Your task to perform on an android device: move an email to a new category in the gmail app Image 0: 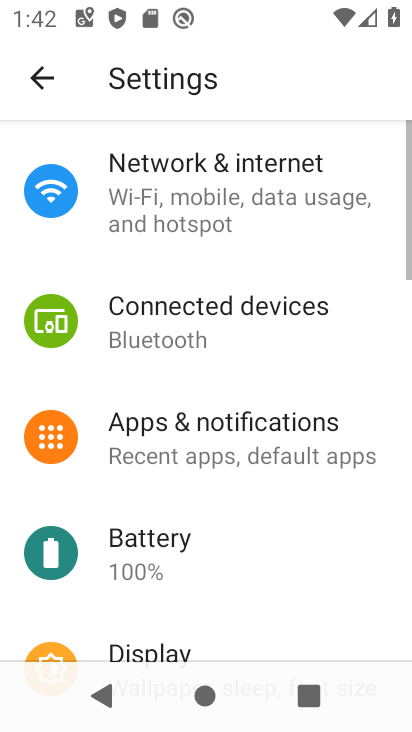
Step 0: press home button
Your task to perform on an android device: move an email to a new category in the gmail app Image 1: 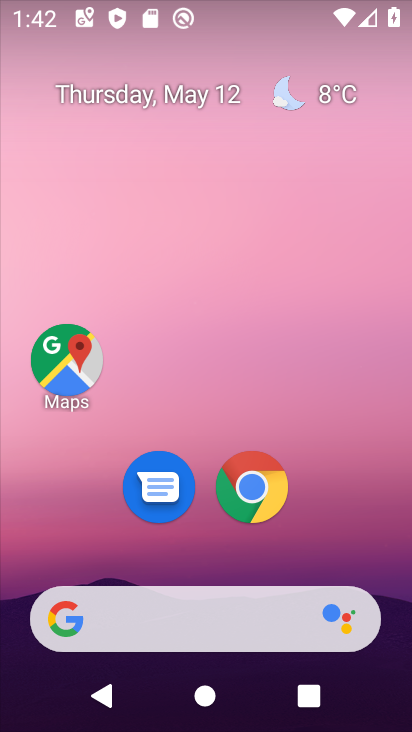
Step 1: drag from (185, 549) to (172, 88)
Your task to perform on an android device: move an email to a new category in the gmail app Image 2: 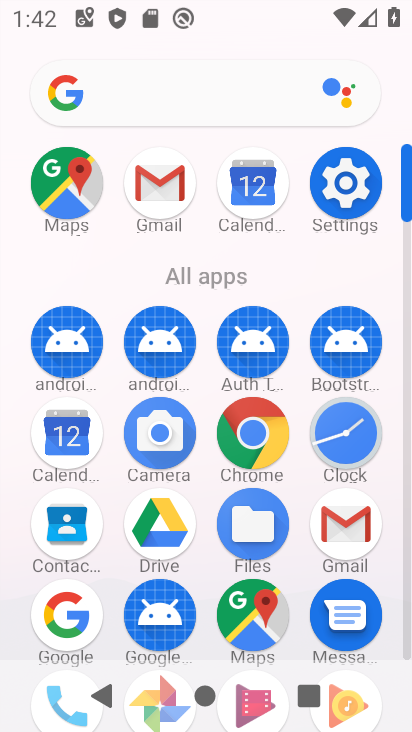
Step 2: click (332, 532)
Your task to perform on an android device: move an email to a new category in the gmail app Image 3: 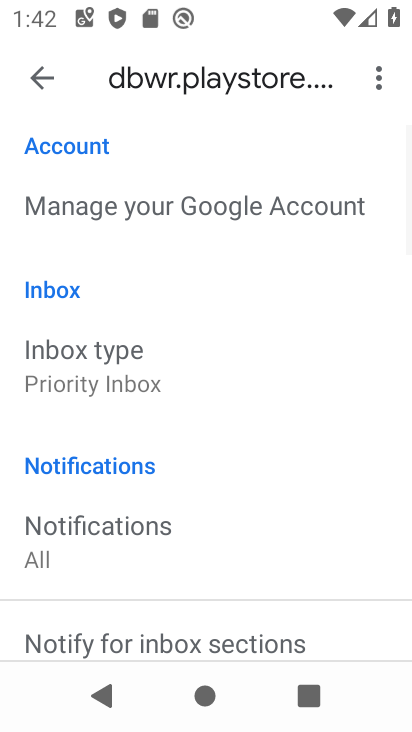
Step 3: click (46, 75)
Your task to perform on an android device: move an email to a new category in the gmail app Image 4: 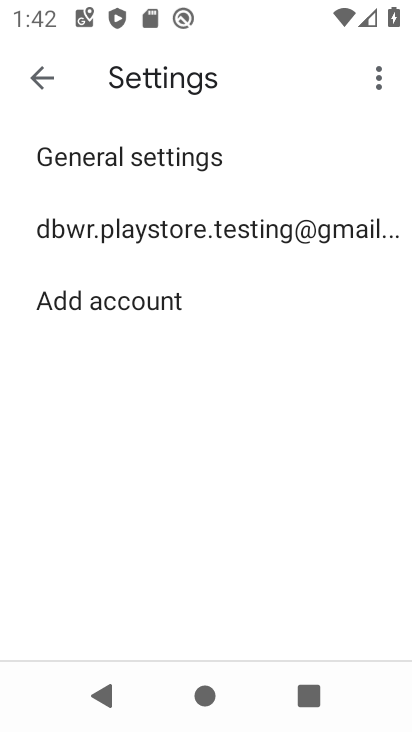
Step 4: click (46, 75)
Your task to perform on an android device: move an email to a new category in the gmail app Image 5: 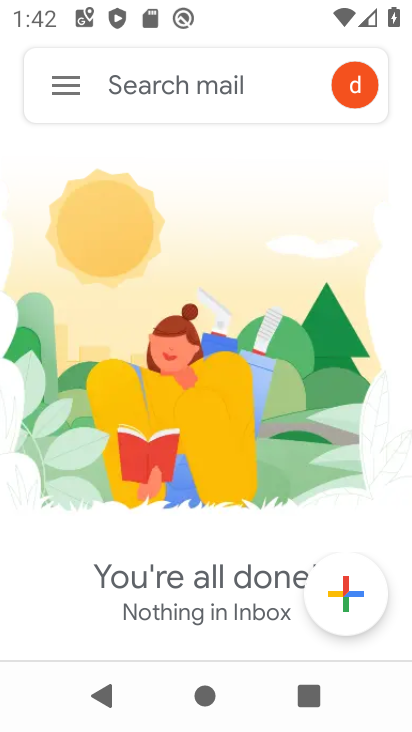
Step 5: click (64, 88)
Your task to perform on an android device: move an email to a new category in the gmail app Image 6: 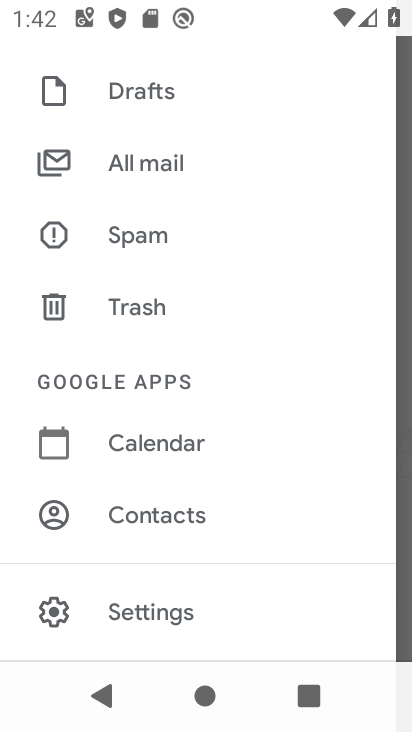
Step 6: click (136, 173)
Your task to perform on an android device: move an email to a new category in the gmail app Image 7: 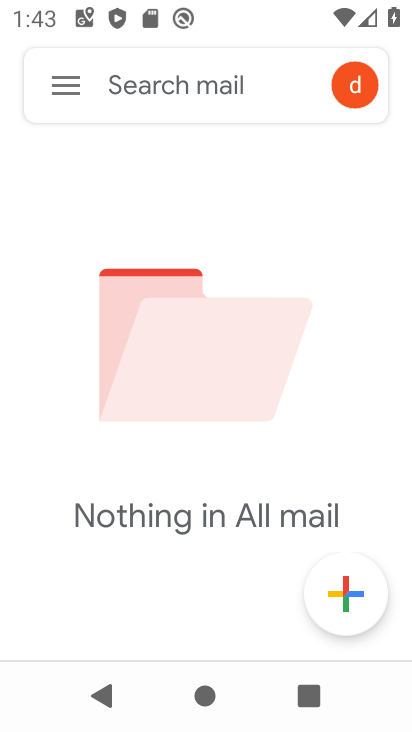
Step 7: task complete